Your task to perform on an android device: Open notification settings Image 0: 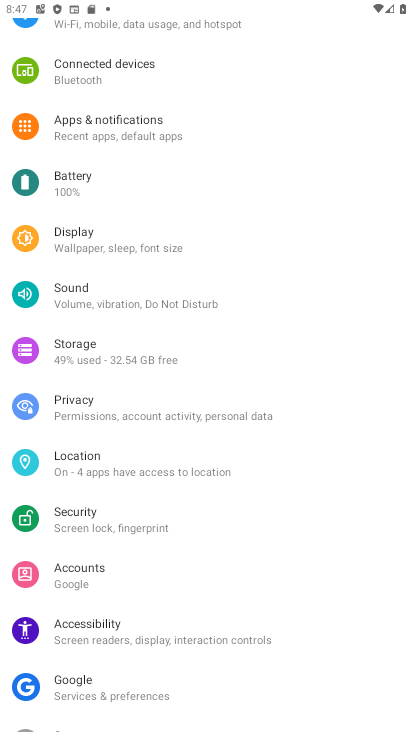
Step 0: press home button
Your task to perform on an android device: Open notification settings Image 1: 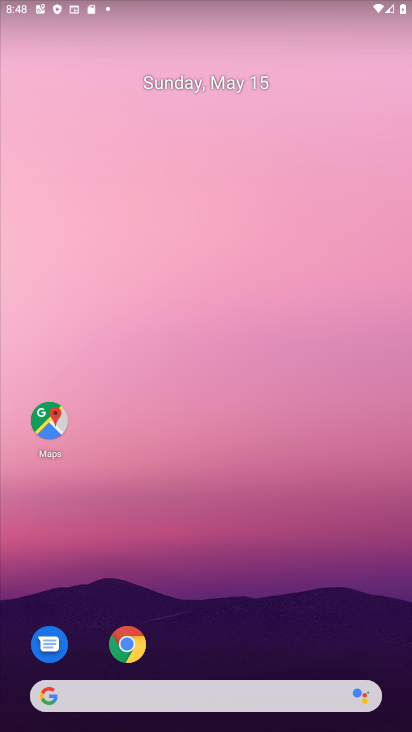
Step 1: drag from (210, 672) to (205, 86)
Your task to perform on an android device: Open notification settings Image 2: 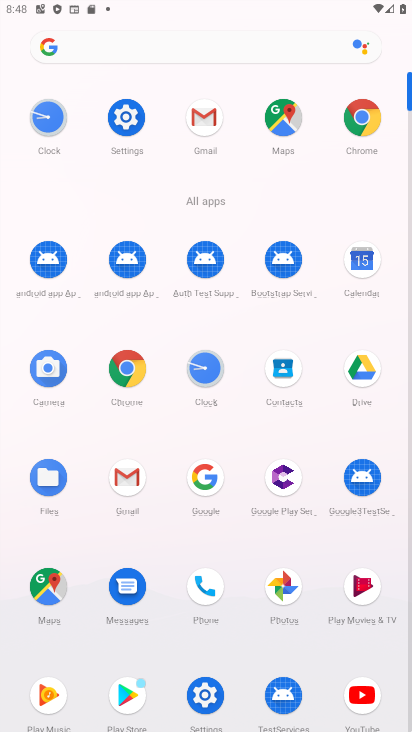
Step 2: click (130, 127)
Your task to perform on an android device: Open notification settings Image 3: 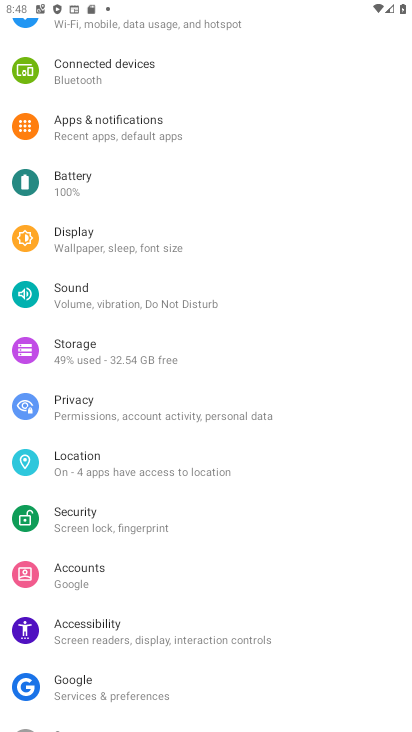
Step 3: click (127, 127)
Your task to perform on an android device: Open notification settings Image 4: 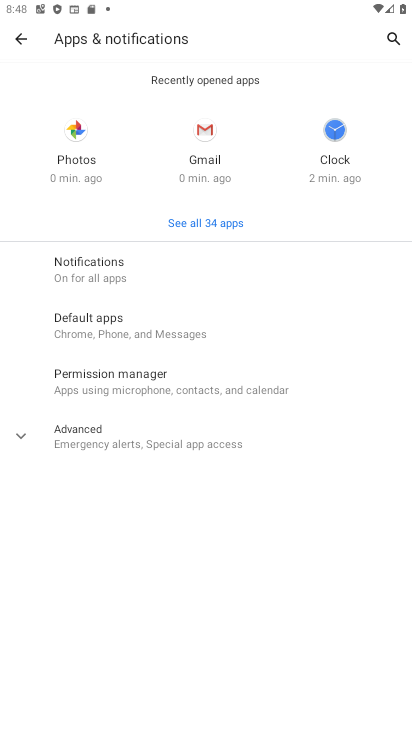
Step 4: click (119, 258)
Your task to perform on an android device: Open notification settings Image 5: 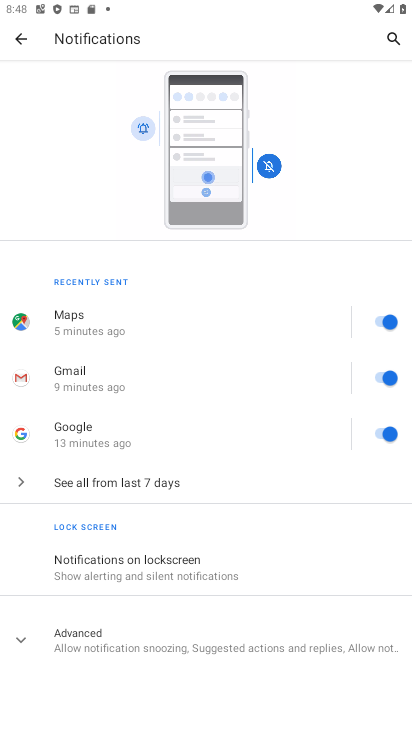
Step 5: click (120, 646)
Your task to perform on an android device: Open notification settings Image 6: 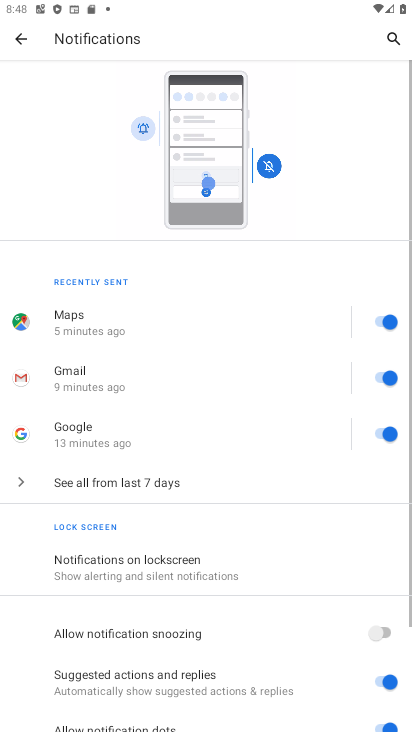
Step 6: task complete